Your task to perform on an android device: turn on sleep mode Image 0: 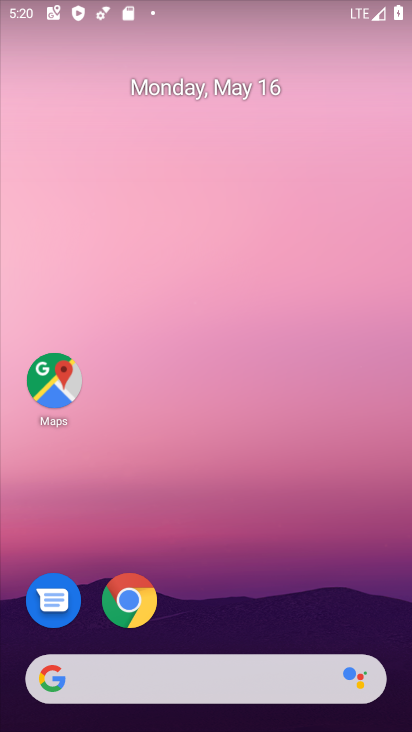
Step 0: drag from (211, 640) to (162, 2)
Your task to perform on an android device: turn on sleep mode Image 1: 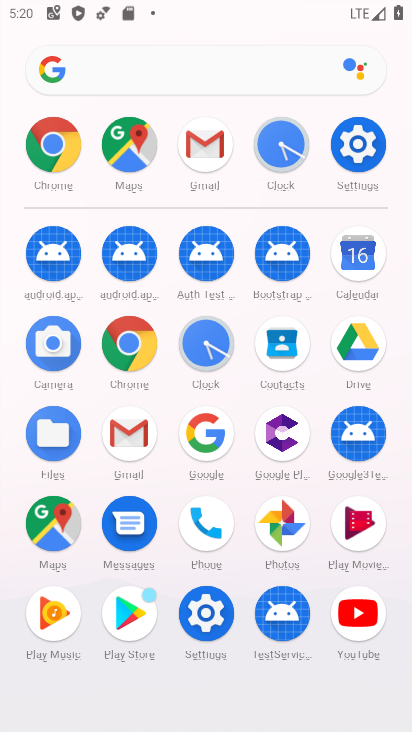
Step 1: click (350, 163)
Your task to perform on an android device: turn on sleep mode Image 2: 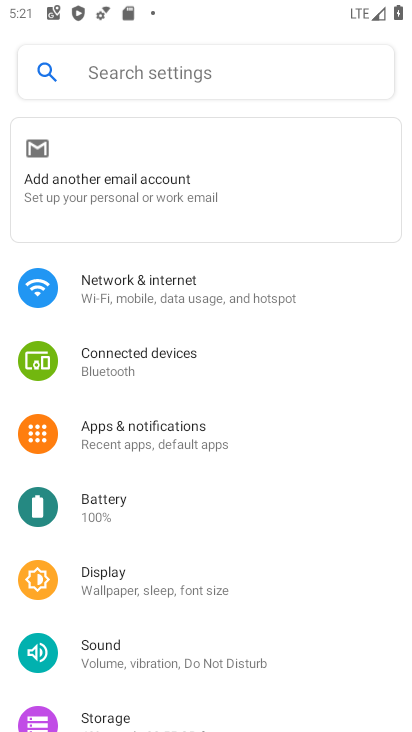
Step 2: drag from (166, 581) to (135, 344)
Your task to perform on an android device: turn on sleep mode Image 3: 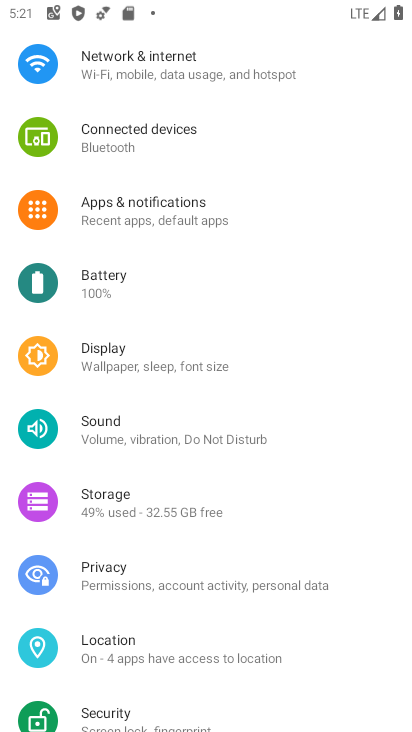
Step 3: click (126, 359)
Your task to perform on an android device: turn on sleep mode Image 4: 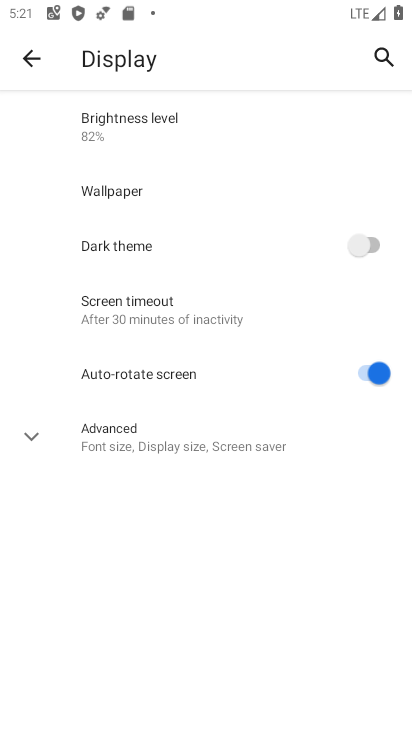
Step 4: task complete